Your task to perform on an android device: manage bookmarks in the chrome app Image 0: 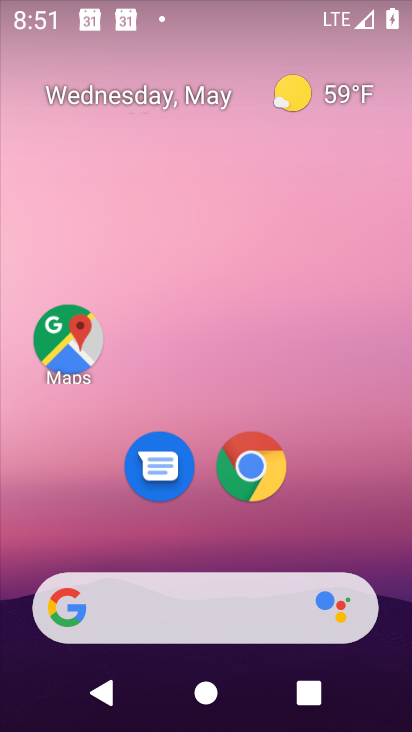
Step 0: drag from (301, 523) to (315, 281)
Your task to perform on an android device: manage bookmarks in the chrome app Image 1: 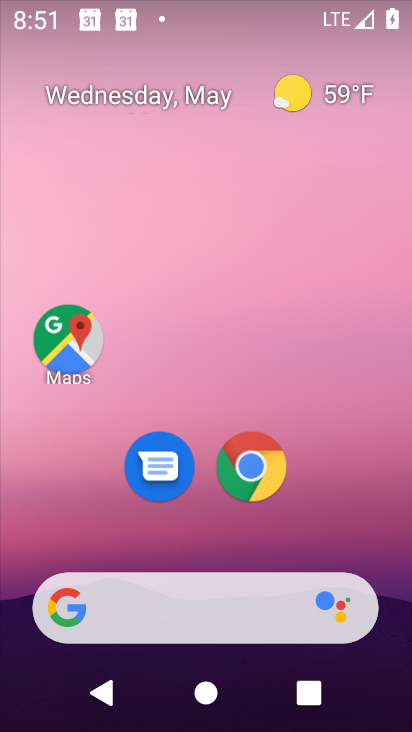
Step 1: drag from (280, 602) to (311, 282)
Your task to perform on an android device: manage bookmarks in the chrome app Image 2: 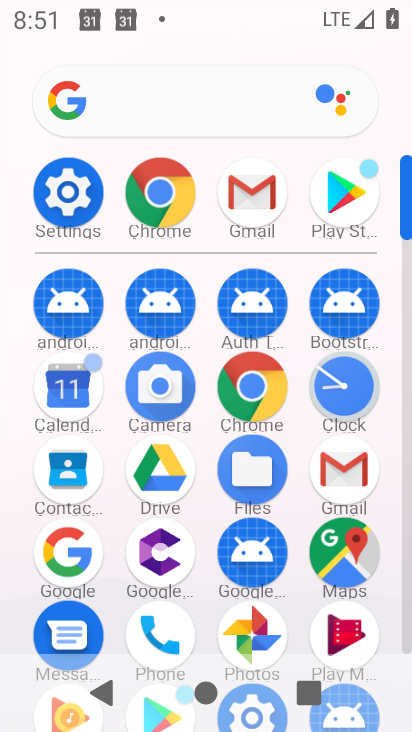
Step 2: click (238, 379)
Your task to perform on an android device: manage bookmarks in the chrome app Image 3: 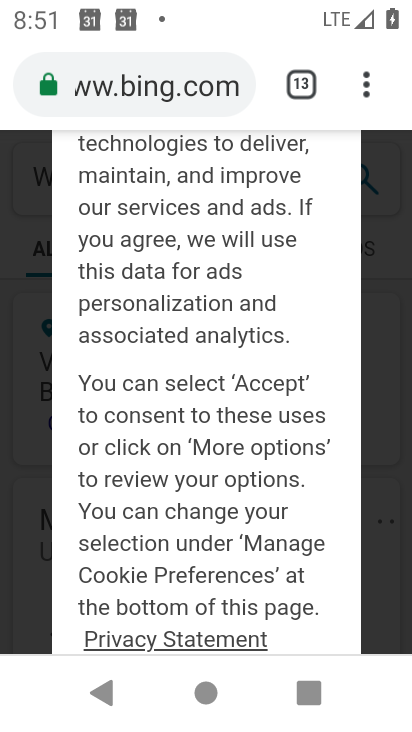
Step 3: click (345, 73)
Your task to perform on an android device: manage bookmarks in the chrome app Image 4: 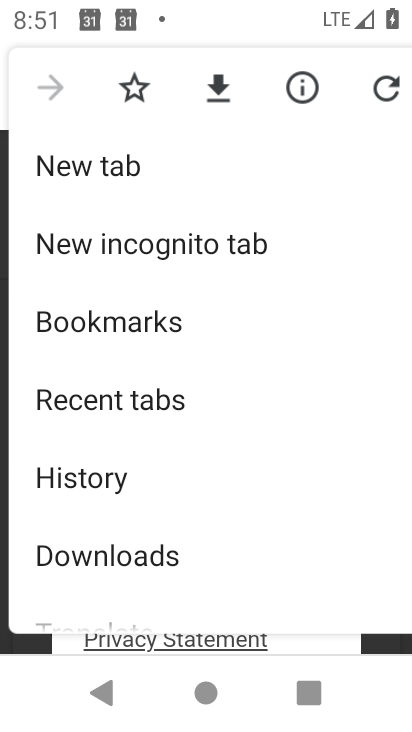
Step 4: click (105, 317)
Your task to perform on an android device: manage bookmarks in the chrome app Image 5: 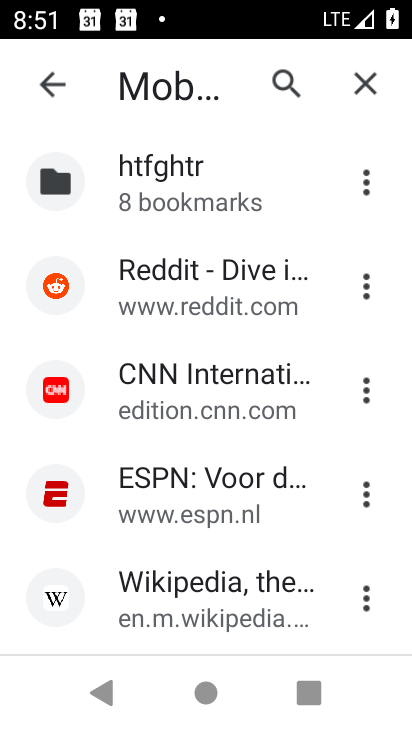
Step 5: click (102, 297)
Your task to perform on an android device: manage bookmarks in the chrome app Image 6: 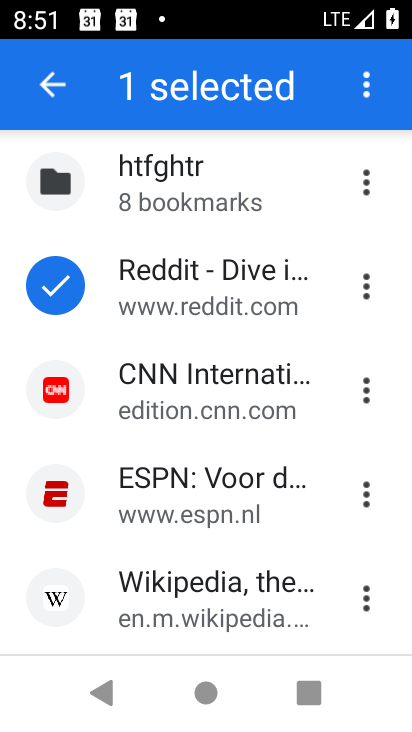
Step 6: click (361, 91)
Your task to perform on an android device: manage bookmarks in the chrome app Image 7: 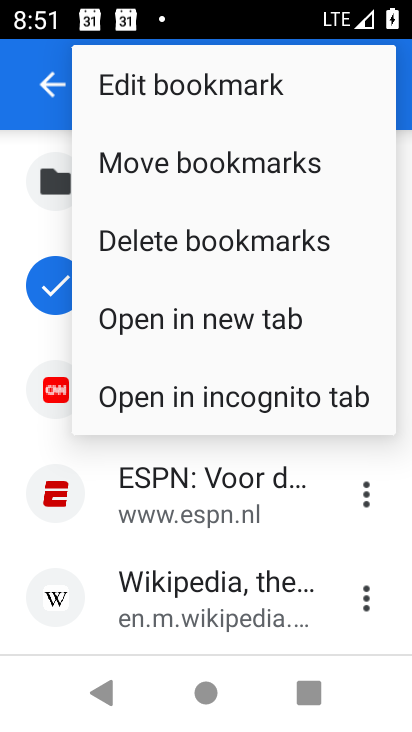
Step 7: click (172, 156)
Your task to perform on an android device: manage bookmarks in the chrome app Image 8: 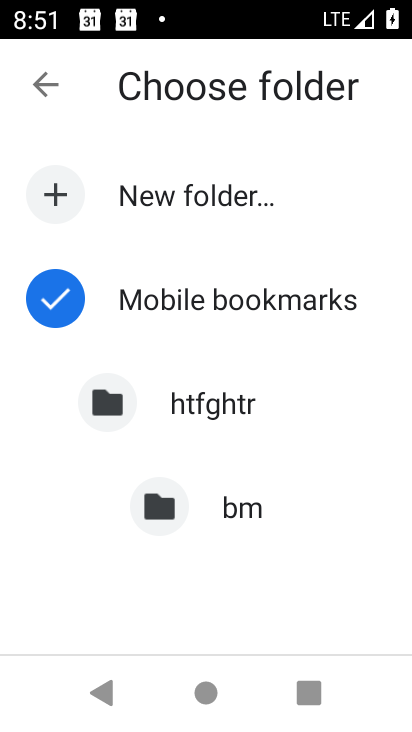
Step 8: click (186, 402)
Your task to perform on an android device: manage bookmarks in the chrome app Image 9: 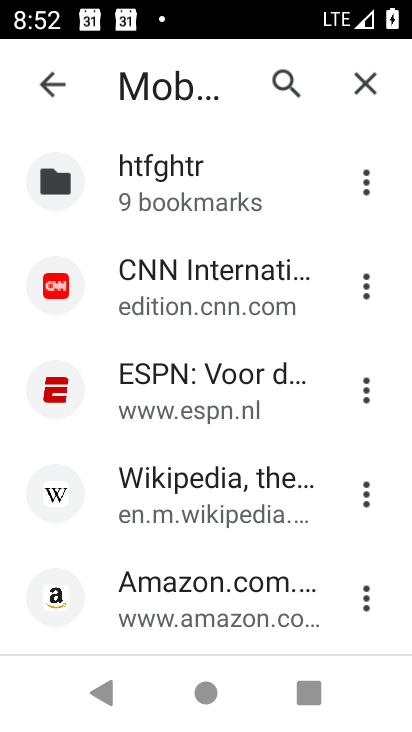
Step 9: task complete